Your task to perform on an android device: turn off improve location accuracy Image 0: 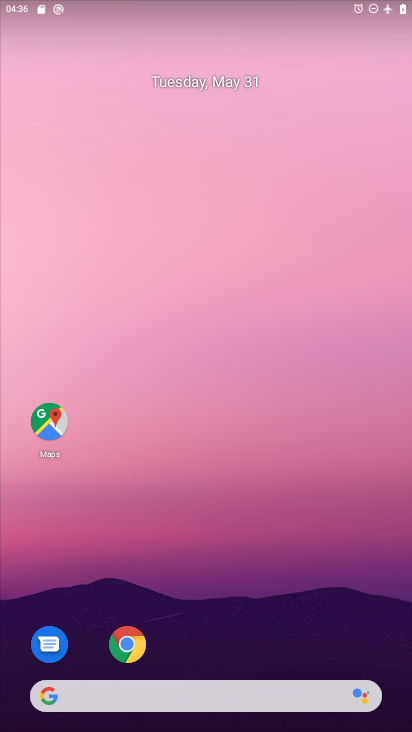
Step 0: drag from (284, 626) to (255, 131)
Your task to perform on an android device: turn off improve location accuracy Image 1: 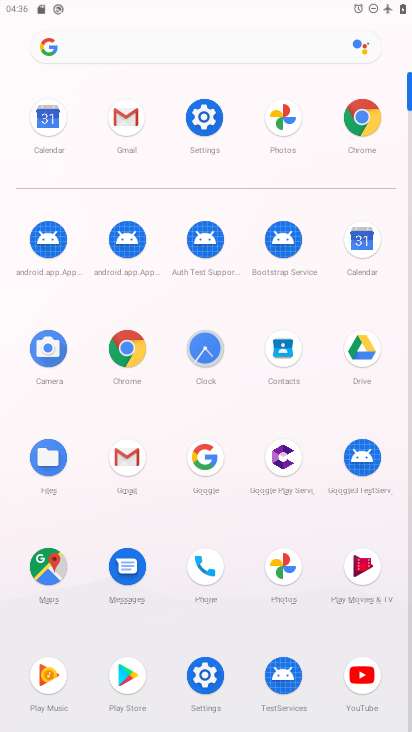
Step 1: click (217, 119)
Your task to perform on an android device: turn off improve location accuracy Image 2: 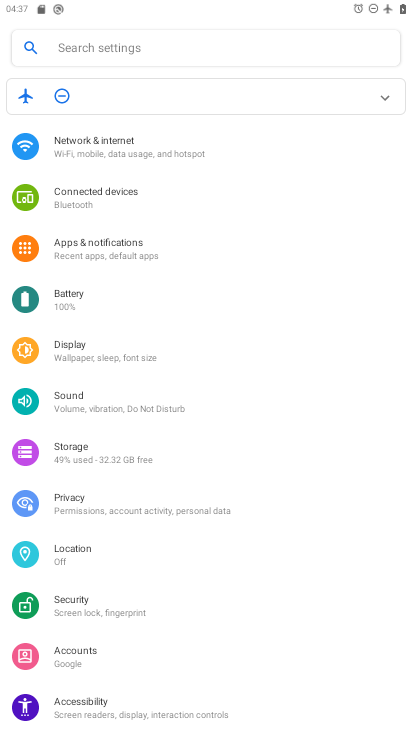
Step 2: click (70, 565)
Your task to perform on an android device: turn off improve location accuracy Image 3: 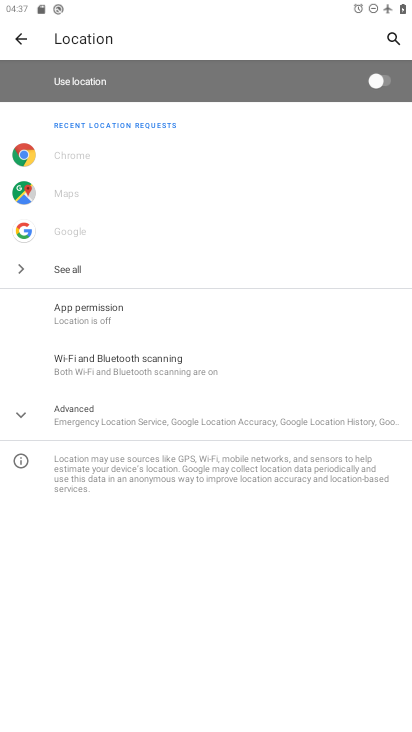
Step 3: click (106, 429)
Your task to perform on an android device: turn off improve location accuracy Image 4: 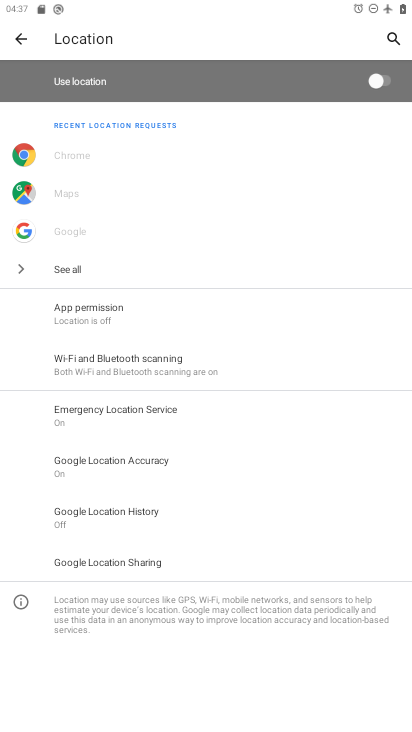
Step 4: click (156, 468)
Your task to perform on an android device: turn off improve location accuracy Image 5: 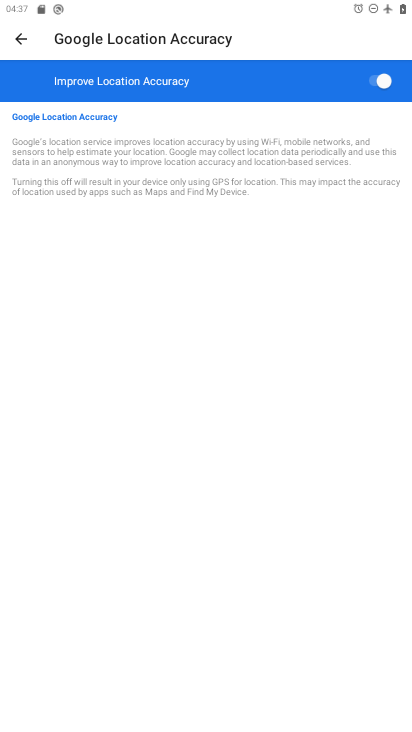
Step 5: click (389, 78)
Your task to perform on an android device: turn off improve location accuracy Image 6: 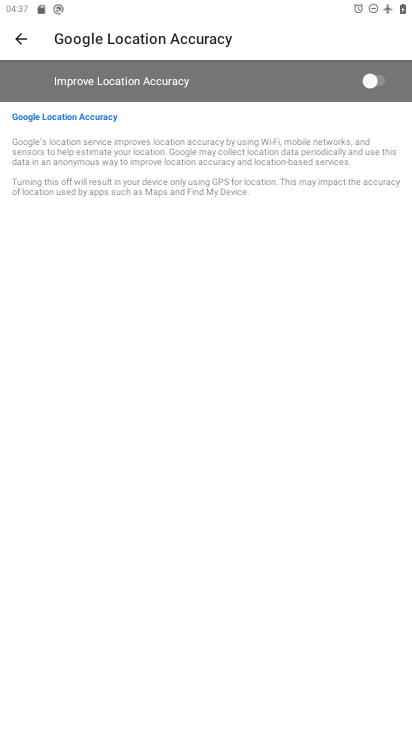
Step 6: task complete